Your task to perform on an android device: Go to sound settings Image 0: 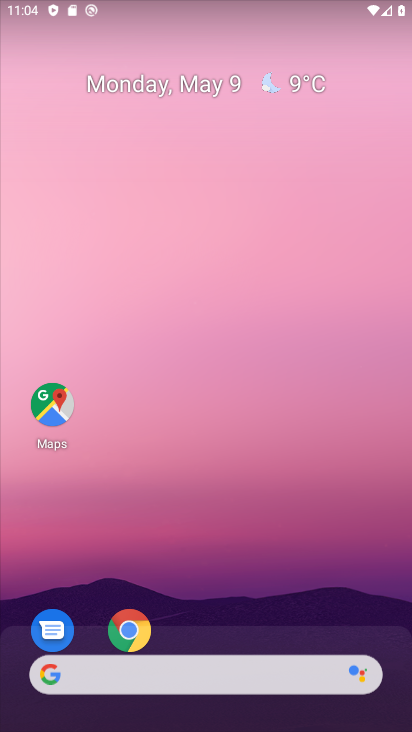
Step 0: drag from (284, 569) to (154, 68)
Your task to perform on an android device: Go to sound settings Image 1: 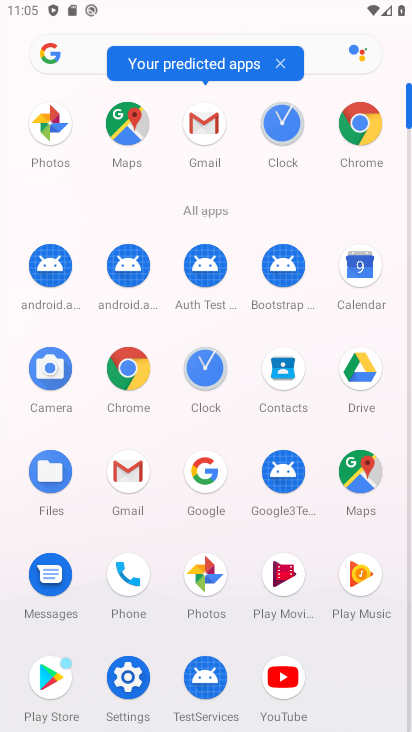
Step 1: click (124, 662)
Your task to perform on an android device: Go to sound settings Image 2: 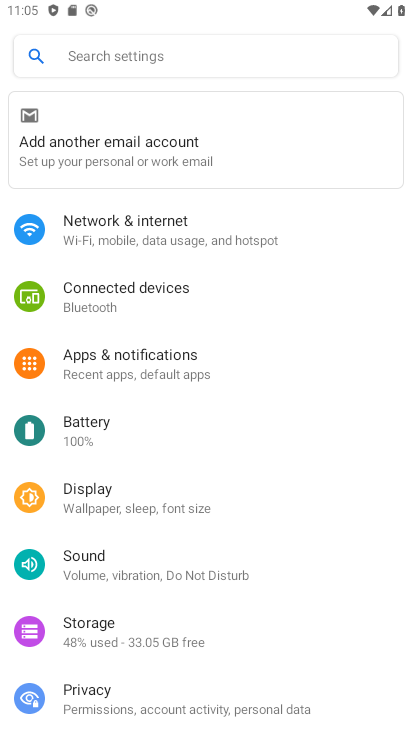
Step 2: click (99, 561)
Your task to perform on an android device: Go to sound settings Image 3: 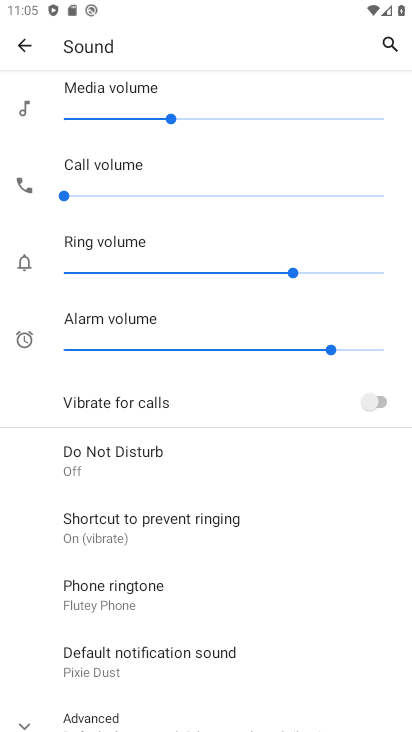
Step 3: task complete